Your task to perform on an android device: Open Google Image 0: 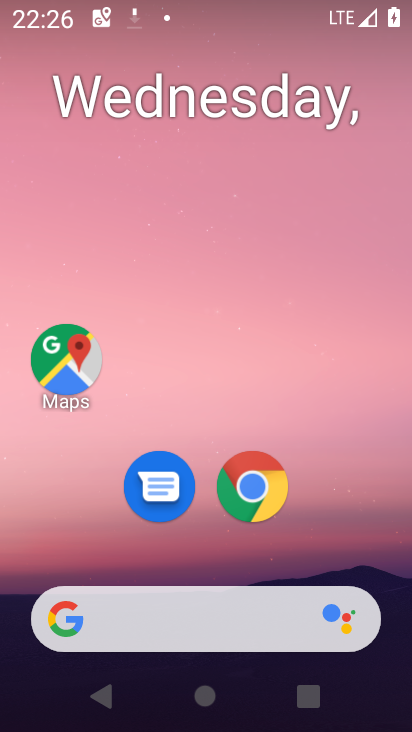
Step 0: drag from (197, 571) to (279, 21)
Your task to perform on an android device: Open Google Image 1: 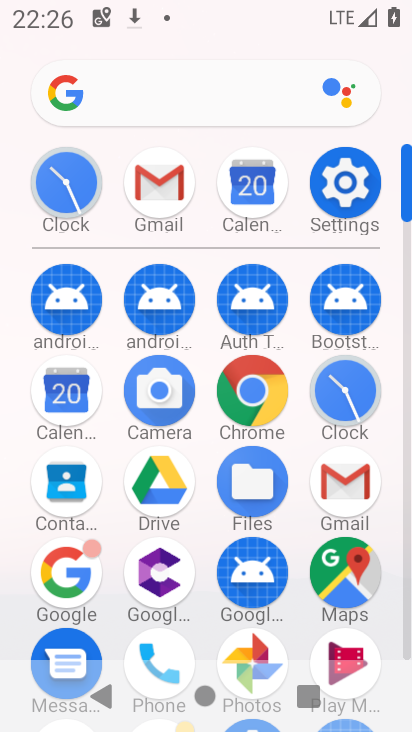
Step 1: click (69, 579)
Your task to perform on an android device: Open Google Image 2: 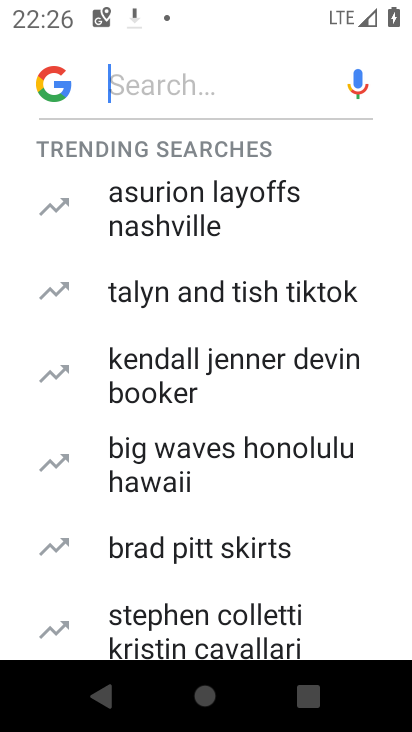
Step 2: task complete